Your task to perform on an android device: Open privacy settings Image 0: 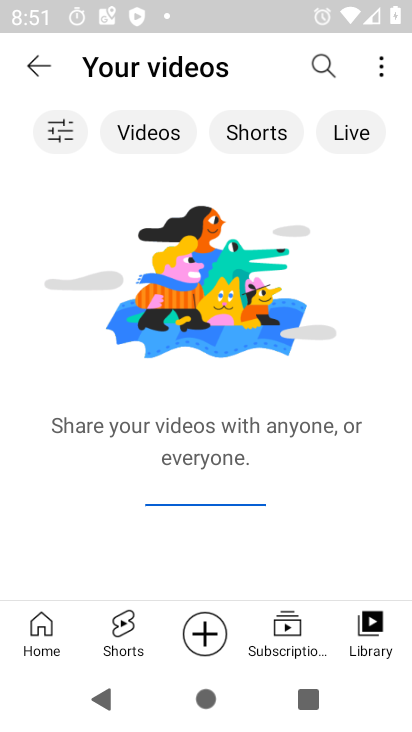
Step 0: press back button
Your task to perform on an android device: Open privacy settings Image 1: 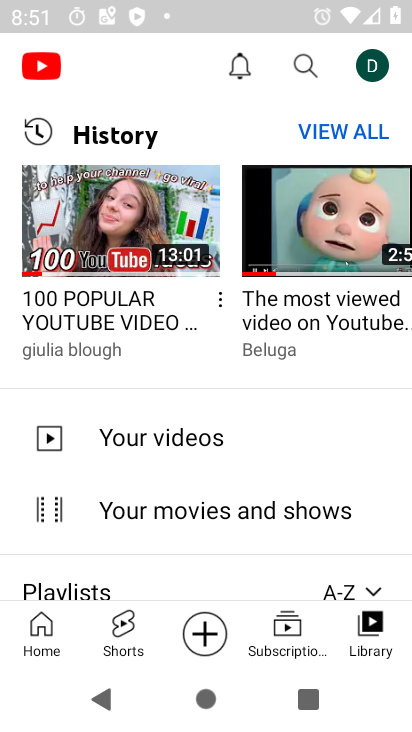
Step 1: press home button
Your task to perform on an android device: Open privacy settings Image 2: 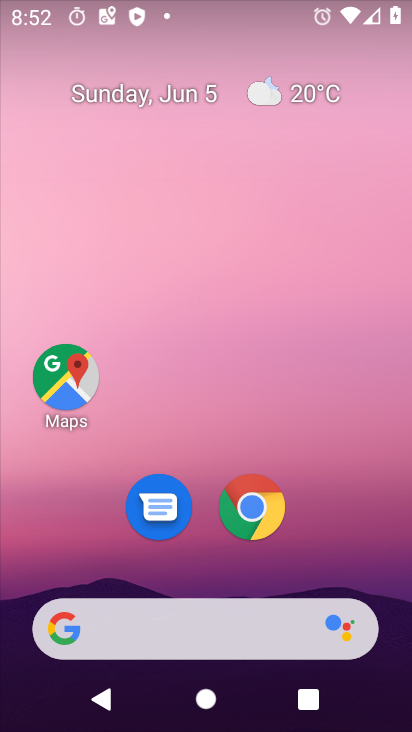
Step 2: drag from (374, 552) to (246, 43)
Your task to perform on an android device: Open privacy settings Image 3: 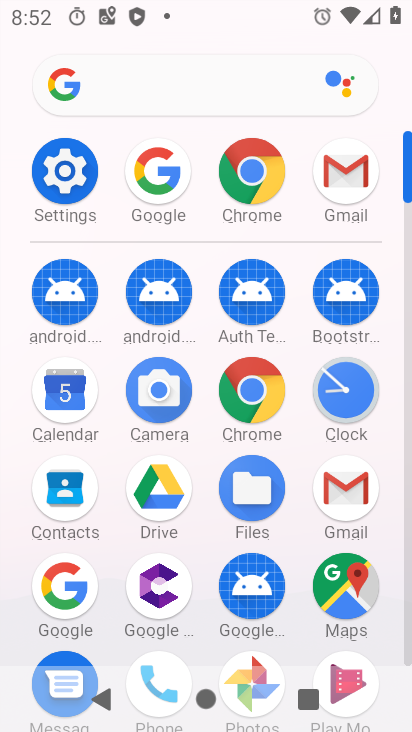
Step 3: click (61, 169)
Your task to perform on an android device: Open privacy settings Image 4: 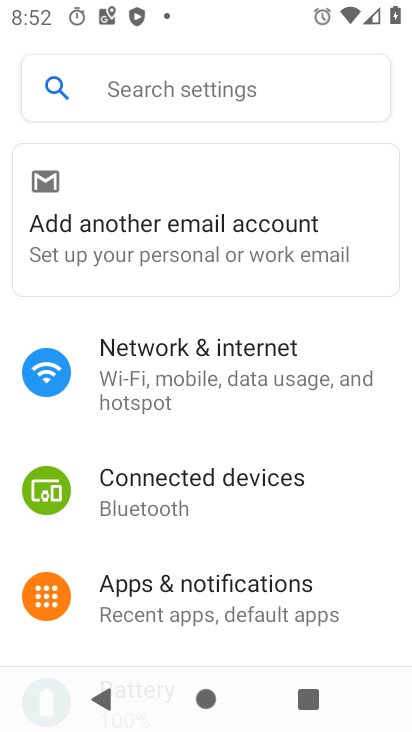
Step 4: drag from (284, 602) to (285, 203)
Your task to perform on an android device: Open privacy settings Image 5: 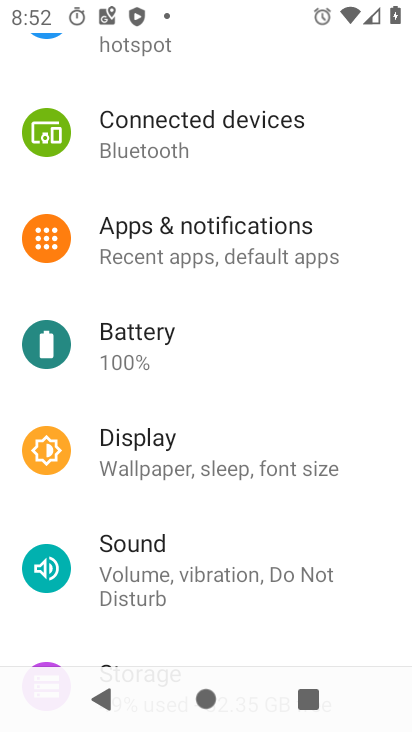
Step 5: drag from (266, 545) to (242, 136)
Your task to perform on an android device: Open privacy settings Image 6: 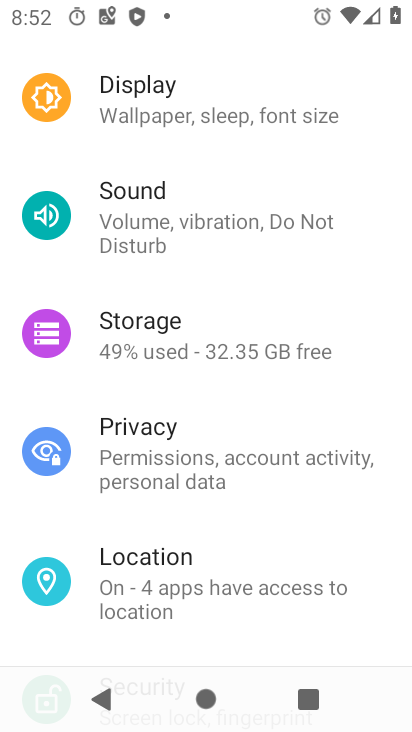
Step 6: click (166, 450)
Your task to perform on an android device: Open privacy settings Image 7: 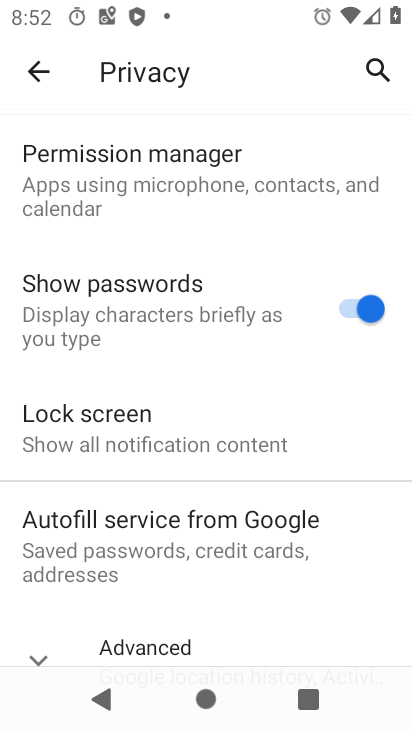
Step 7: click (52, 653)
Your task to perform on an android device: Open privacy settings Image 8: 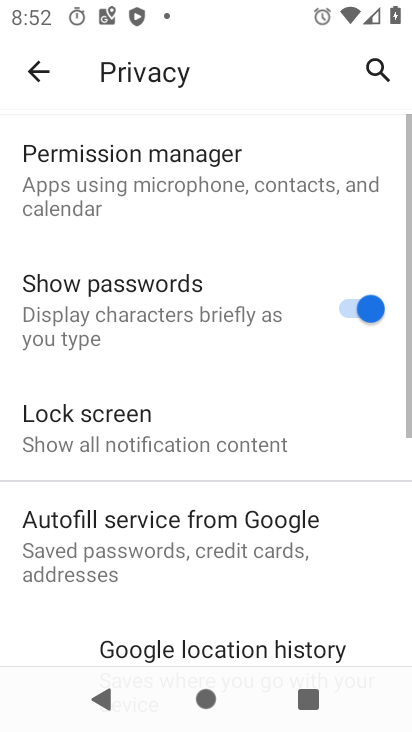
Step 8: task complete